Your task to perform on an android device: toggle javascript in the chrome app Image 0: 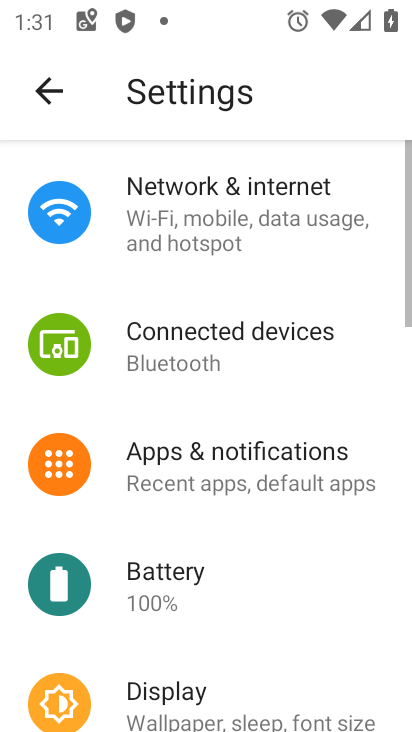
Step 0: press home button
Your task to perform on an android device: toggle javascript in the chrome app Image 1: 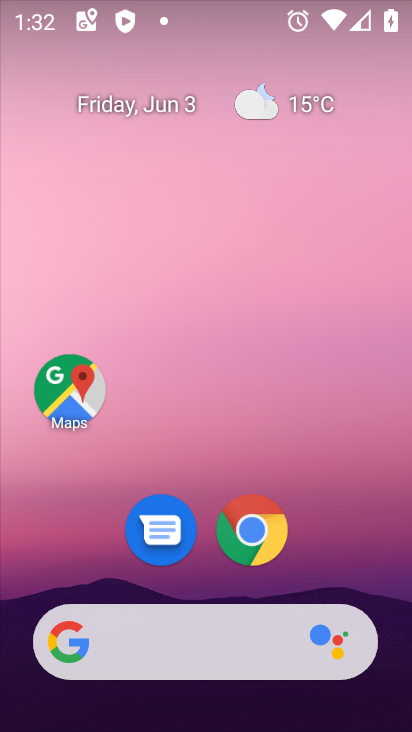
Step 1: click (262, 523)
Your task to perform on an android device: toggle javascript in the chrome app Image 2: 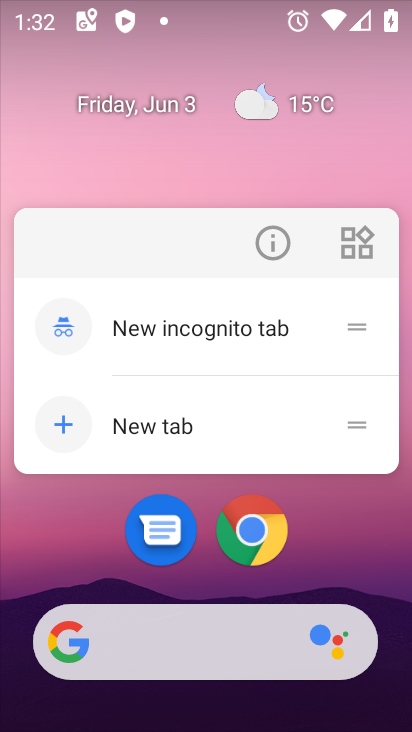
Step 2: click (265, 541)
Your task to perform on an android device: toggle javascript in the chrome app Image 3: 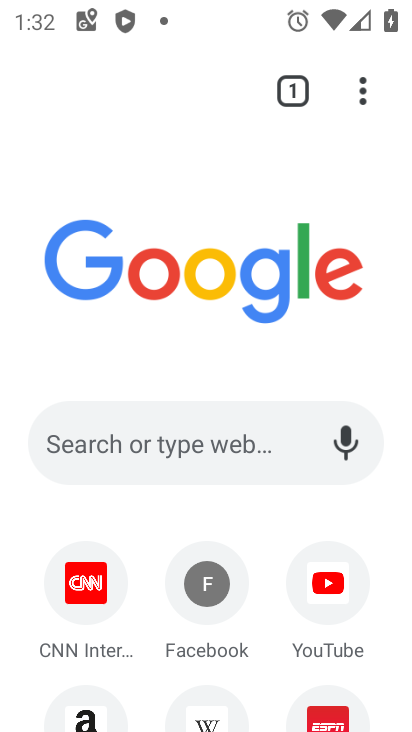
Step 3: drag from (362, 95) to (203, 561)
Your task to perform on an android device: toggle javascript in the chrome app Image 4: 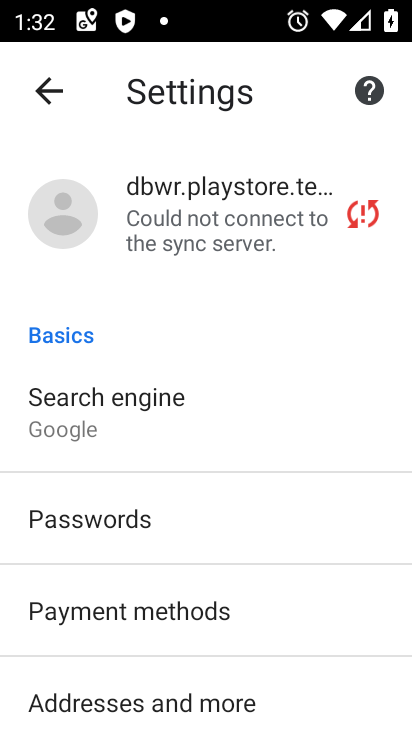
Step 4: drag from (287, 330) to (285, 70)
Your task to perform on an android device: toggle javascript in the chrome app Image 5: 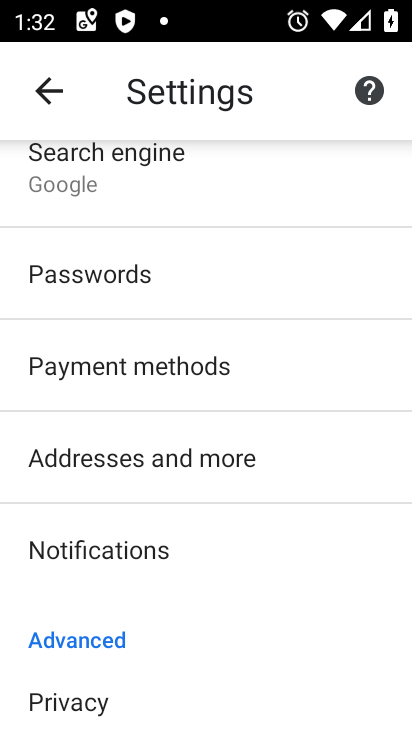
Step 5: drag from (226, 645) to (251, 296)
Your task to perform on an android device: toggle javascript in the chrome app Image 6: 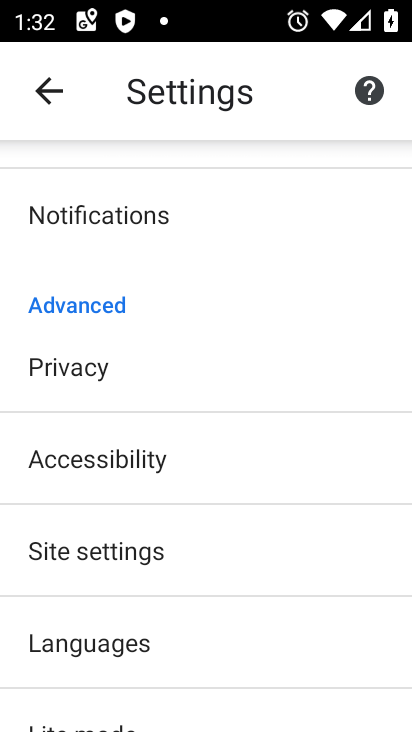
Step 6: click (69, 553)
Your task to perform on an android device: toggle javascript in the chrome app Image 7: 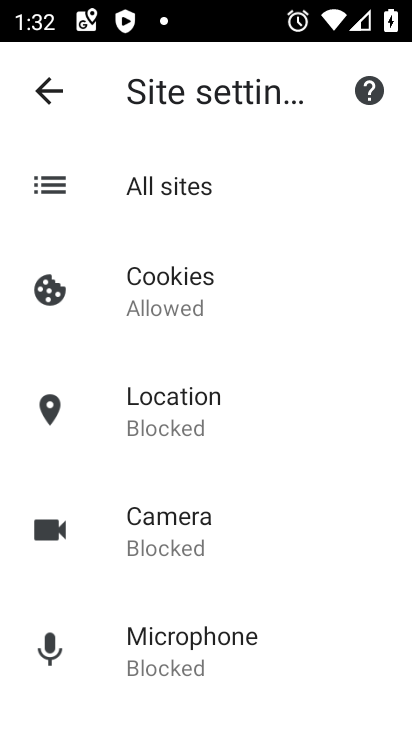
Step 7: drag from (290, 225) to (281, 6)
Your task to perform on an android device: toggle javascript in the chrome app Image 8: 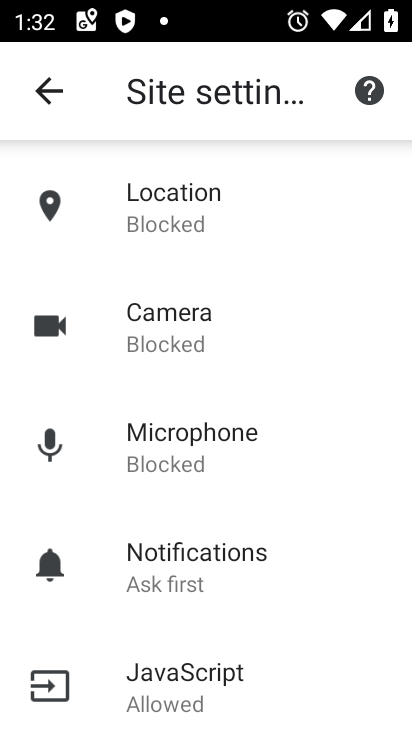
Step 8: click (141, 683)
Your task to perform on an android device: toggle javascript in the chrome app Image 9: 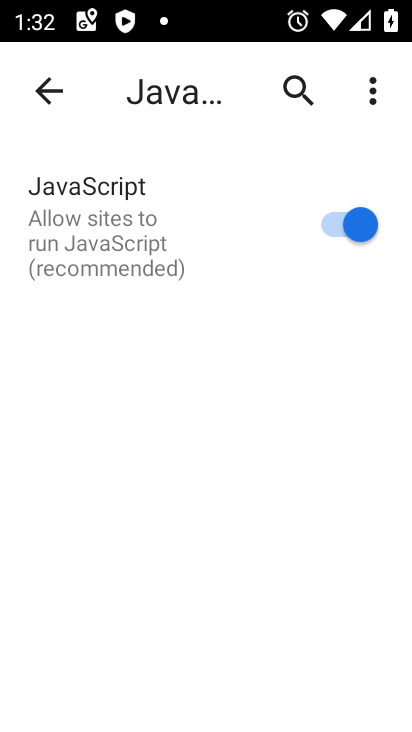
Step 9: click (347, 219)
Your task to perform on an android device: toggle javascript in the chrome app Image 10: 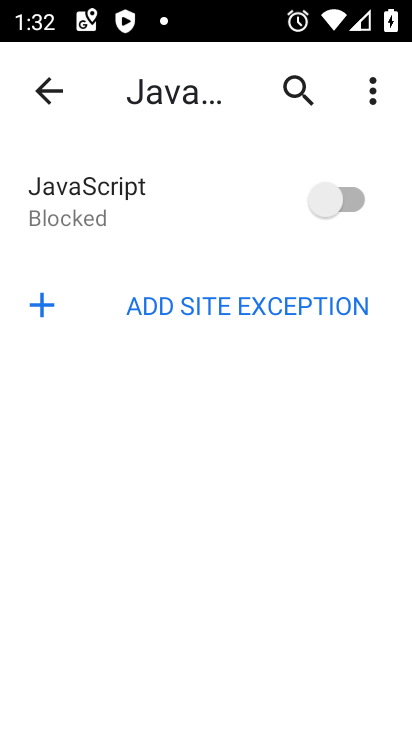
Step 10: task complete